Your task to perform on an android device: Go to internet settings Image 0: 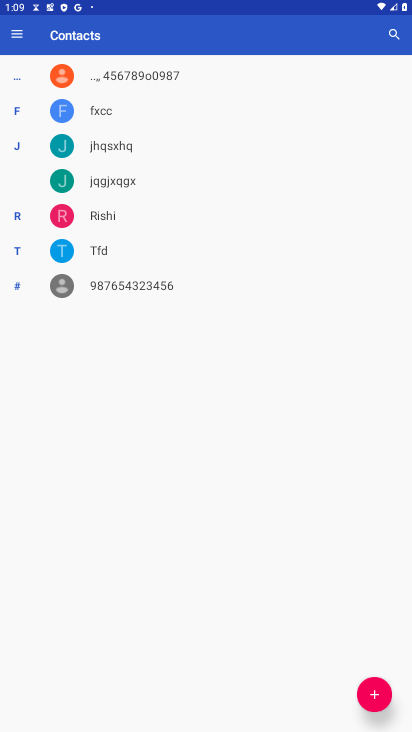
Step 0: press home button
Your task to perform on an android device: Go to internet settings Image 1: 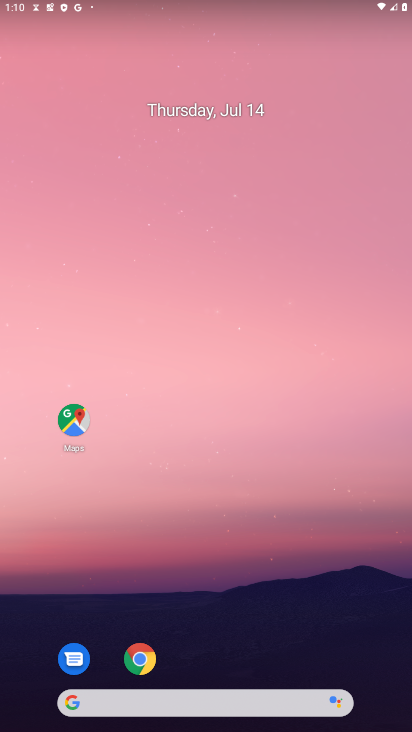
Step 1: drag from (25, 676) to (299, 92)
Your task to perform on an android device: Go to internet settings Image 2: 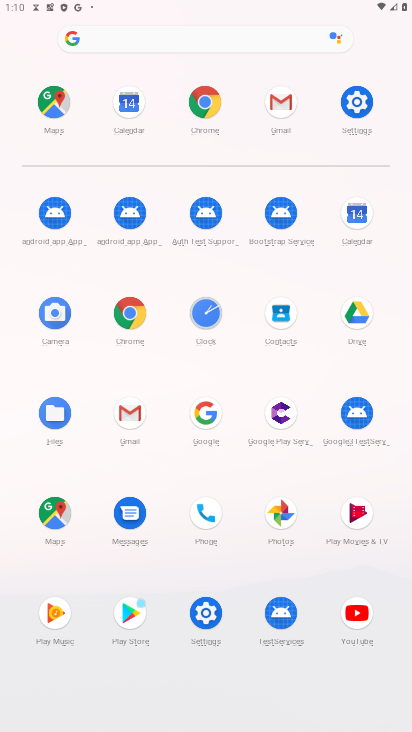
Step 2: click (195, 618)
Your task to perform on an android device: Go to internet settings Image 3: 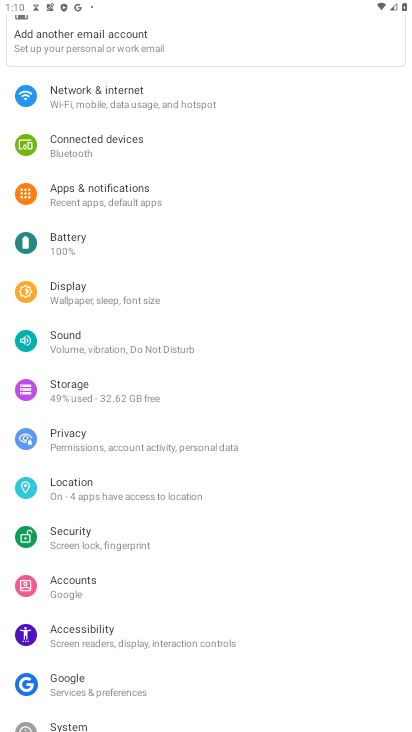
Step 3: click (119, 95)
Your task to perform on an android device: Go to internet settings Image 4: 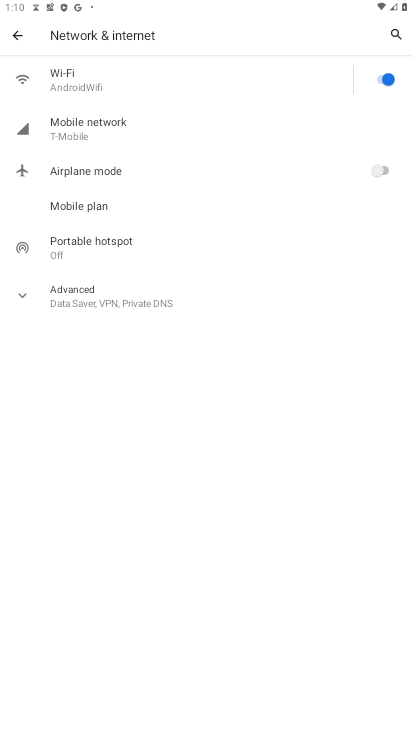
Step 4: task complete